Your task to perform on an android device: Go to Amazon Image 0: 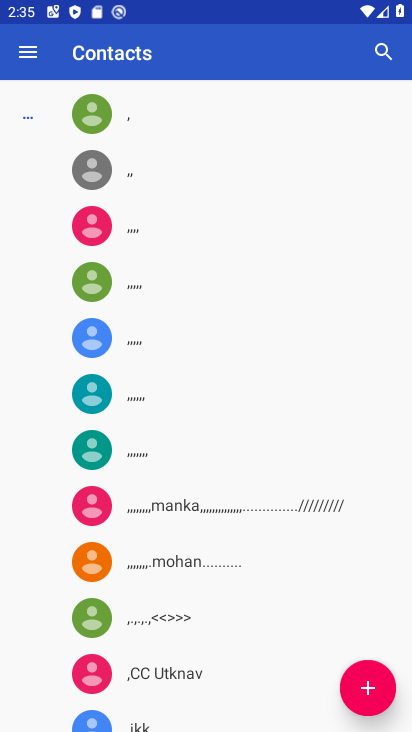
Step 0: press home button
Your task to perform on an android device: Go to Amazon Image 1: 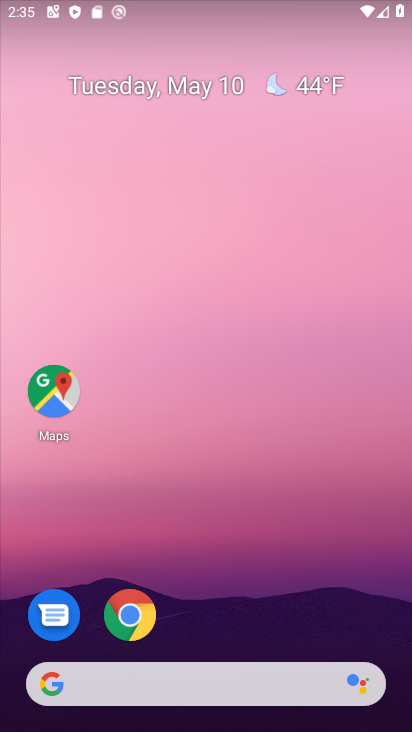
Step 1: click (148, 610)
Your task to perform on an android device: Go to Amazon Image 2: 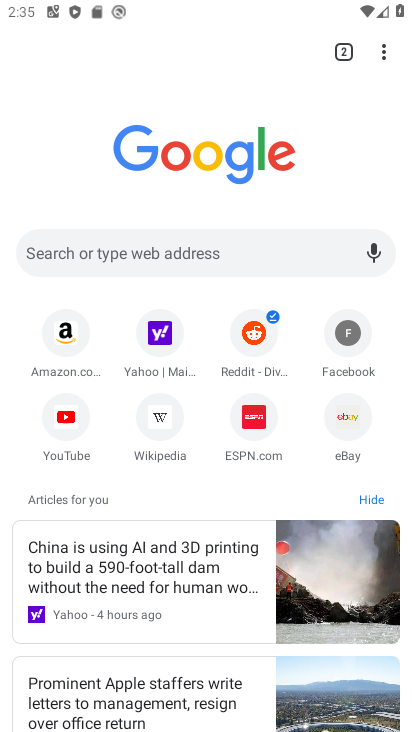
Step 2: click (49, 340)
Your task to perform on an android device: Go to Amazon Image 3: 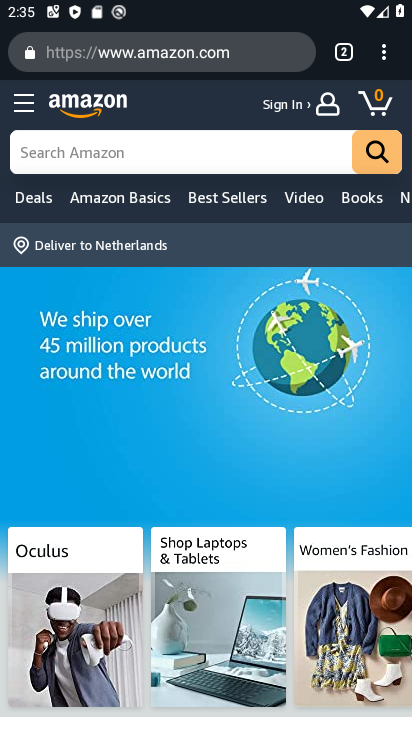
Step 3: task complete